Your task to perform on an android device: What is the news today? Image 0: 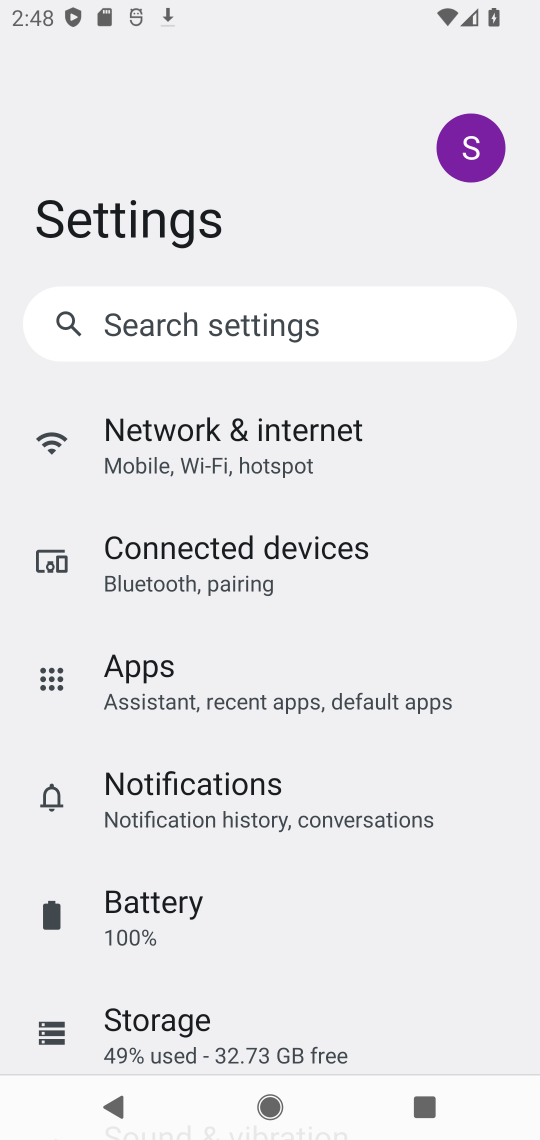
Step 0: press home button
Your task to perform on an android device: What is the news today? Image 1: 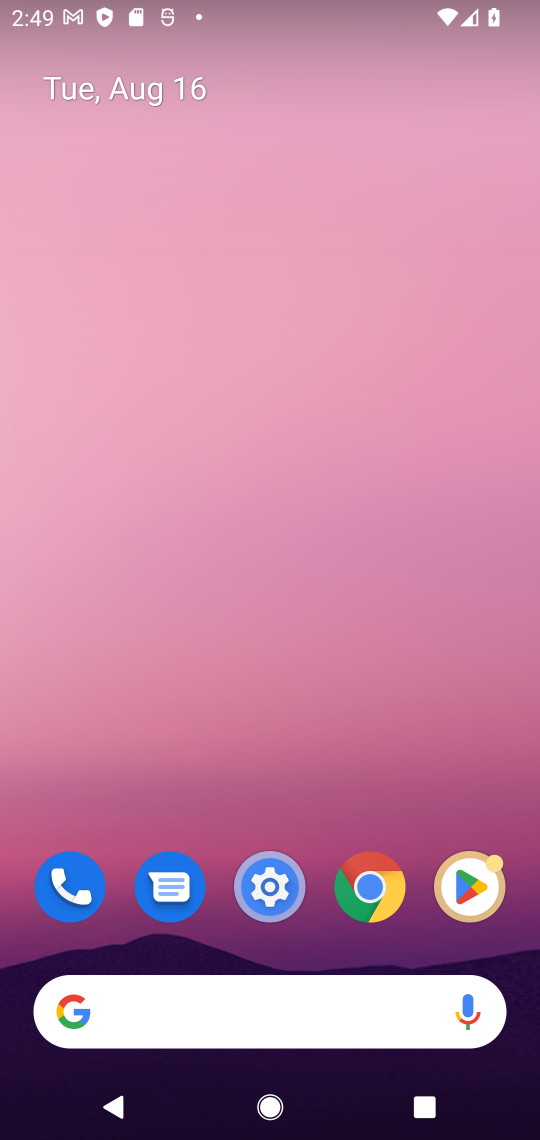
Step 1: drag from (240, 796) to (240, 149)
Your task to perform on an android device: What is the news today? Image 2: 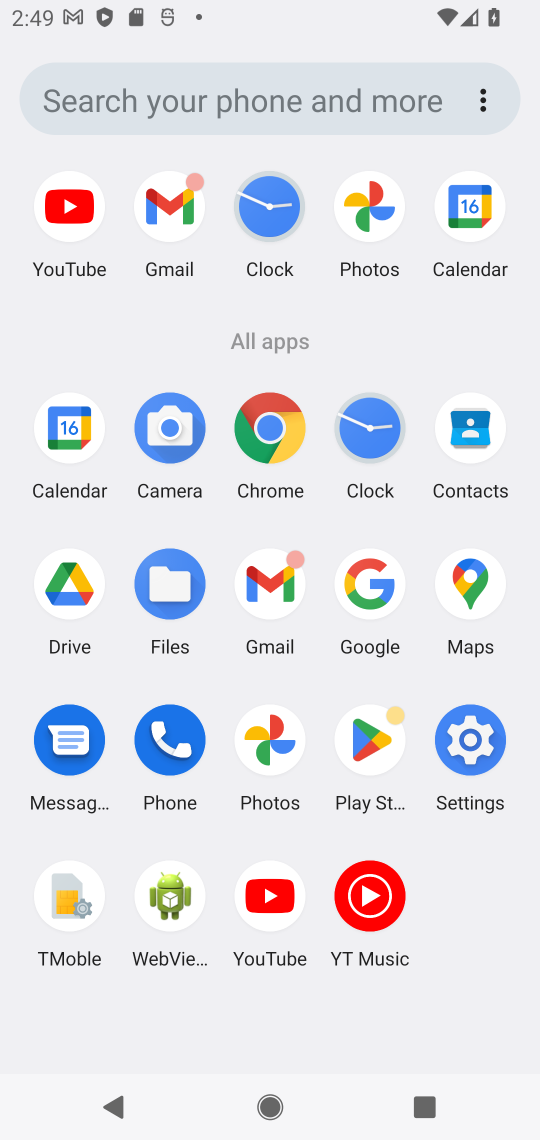
Step 2: click (267, 430)
Your task to perform on an android device: What is the news today? Image 3: 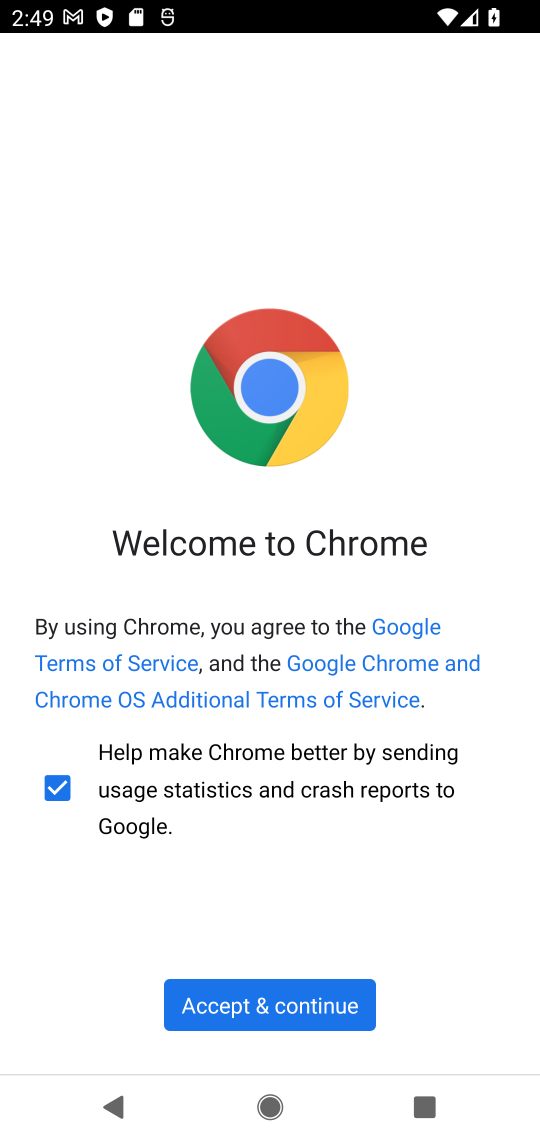
Step 3: click (267, 993)
Your task to perform on an android device: What is the news today? Image 4: 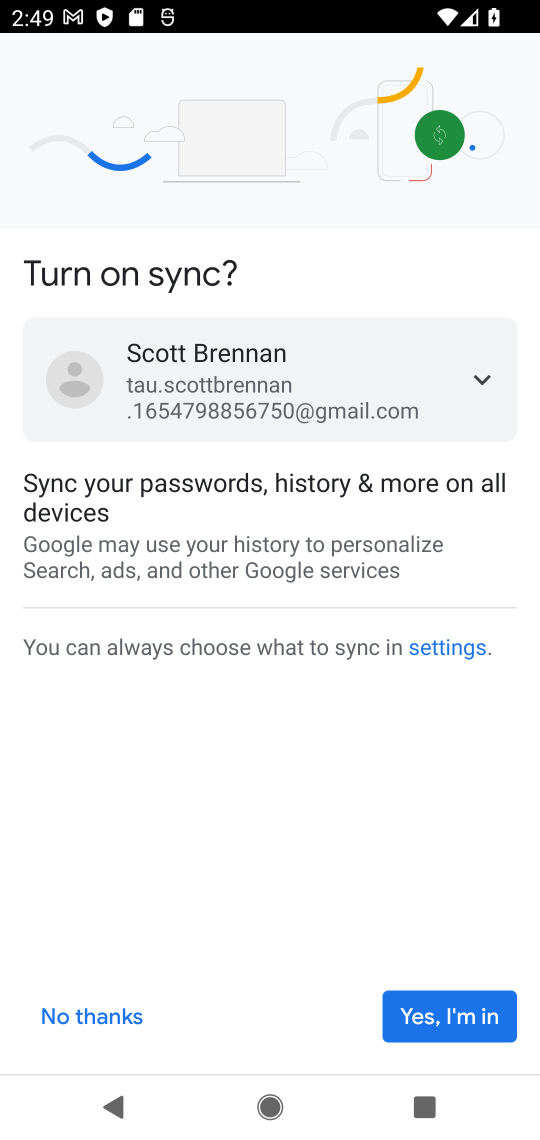
Step 4: click (436, 1013)
Your task to perform on an android device: What is the news today? Image 5: 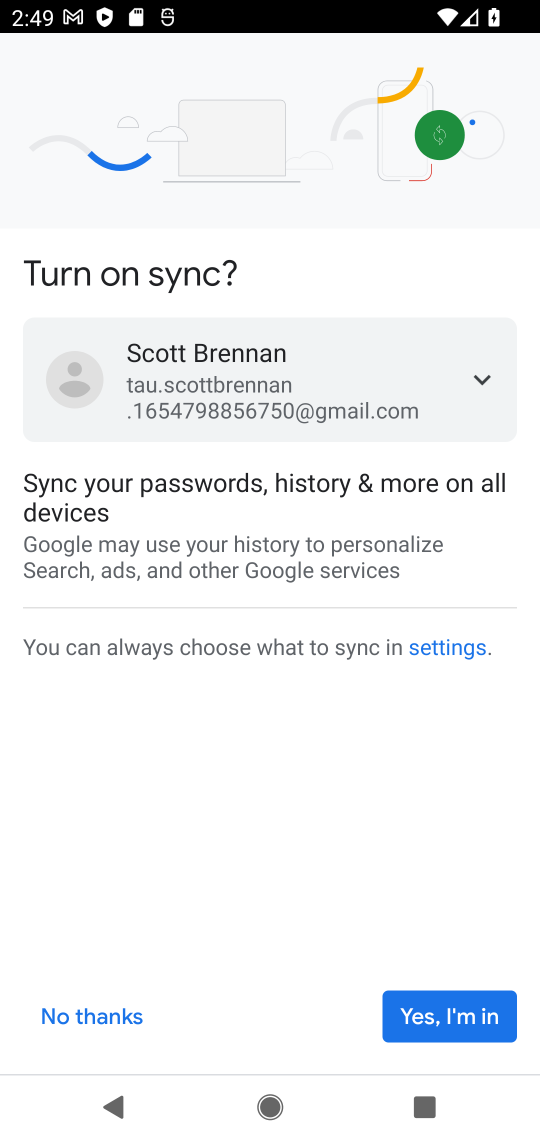
Step 5: click (469, 1022)
Your task to perform on an android device: What is the news today? Image 6: 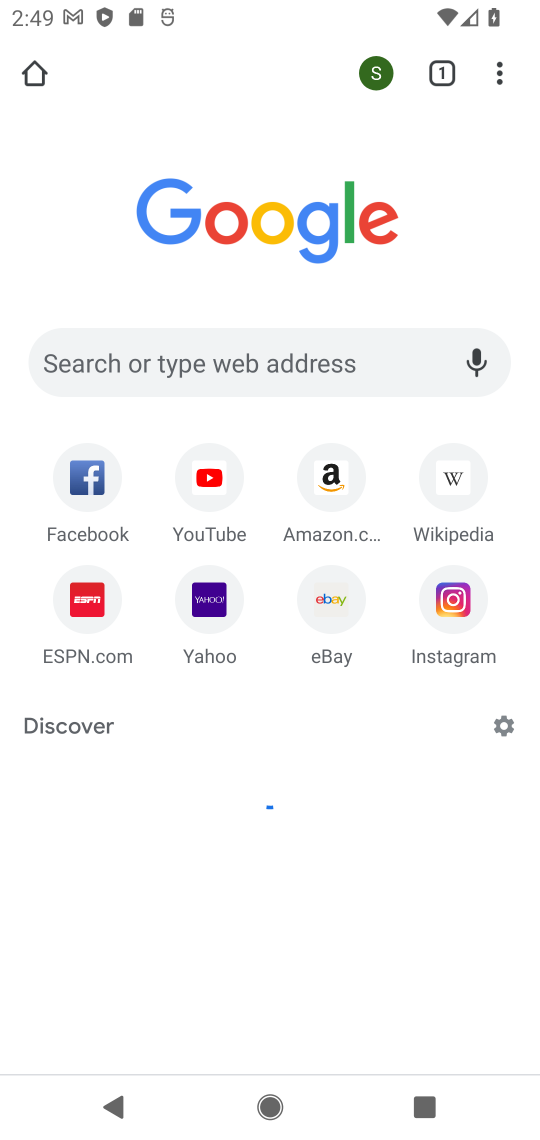
Step 6: click (216, 375)
Your task to perform on an android device: What is the news today? Image 7: 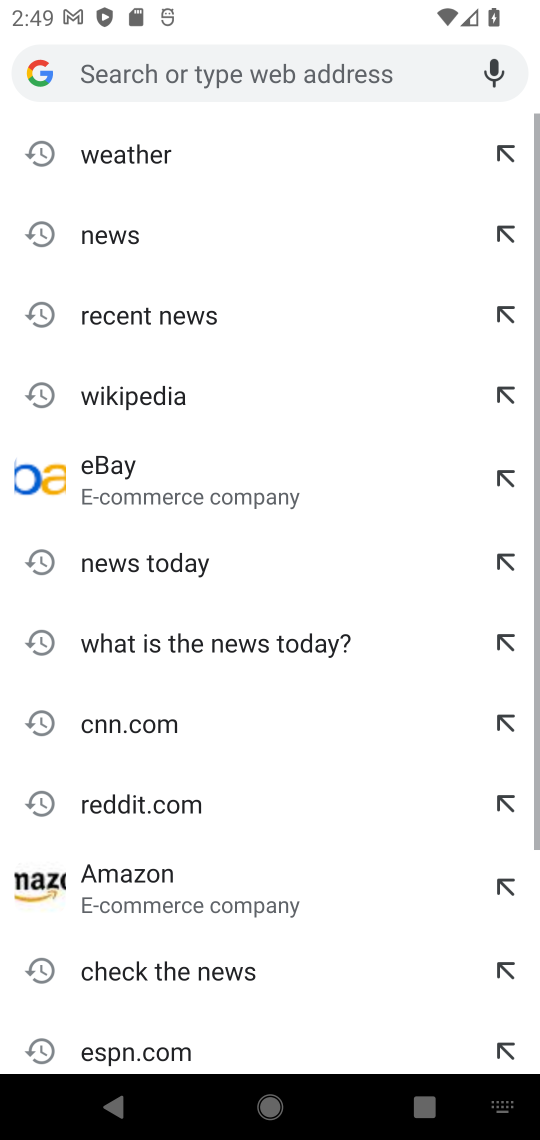
Step 7: click (142, 236)
Your task to perform on an android device: What is the news today? Image 8: 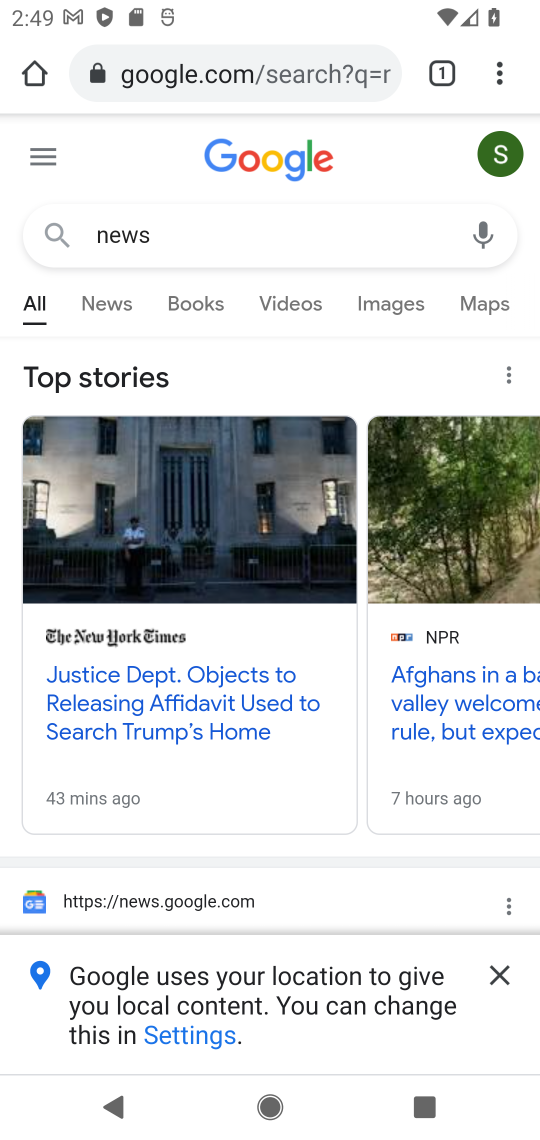
Step 8: drag from (379, 362) to (351, 1)
Your task to perform on an android device: What is the news today? Image 9: 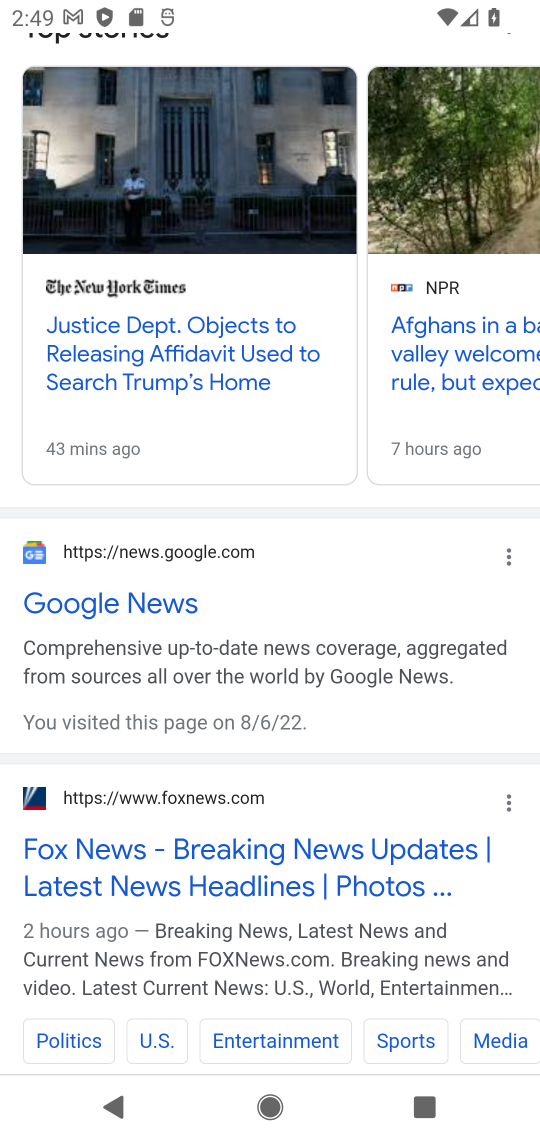
Step 9: click (167, 595)
Your task to perform on an android device: What is the news today? Image 10: 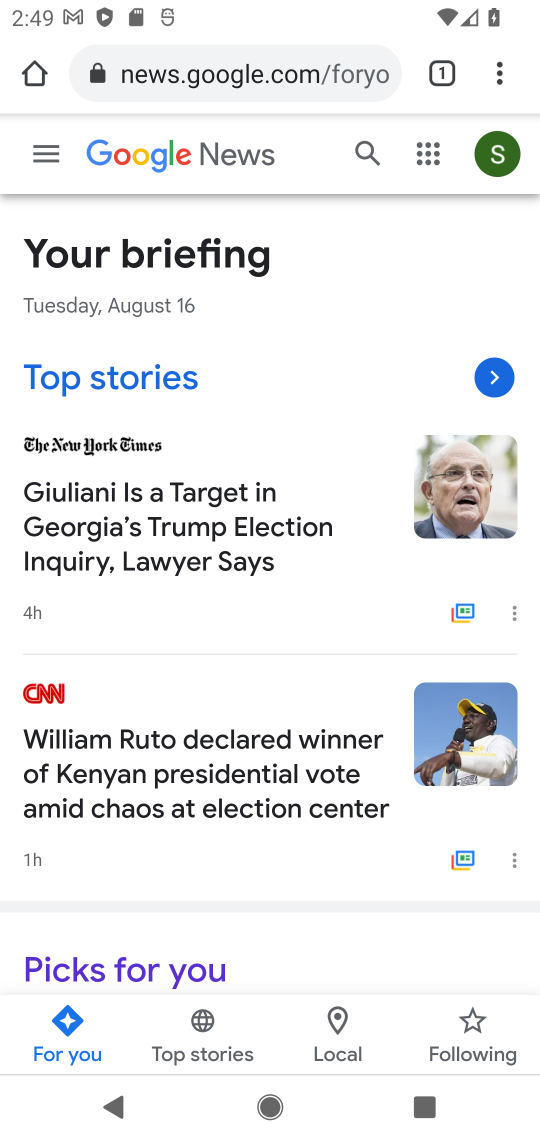
Step 10: task complete